Your task to perform on an android device: turn smart compose on in the gmail app Image 0: 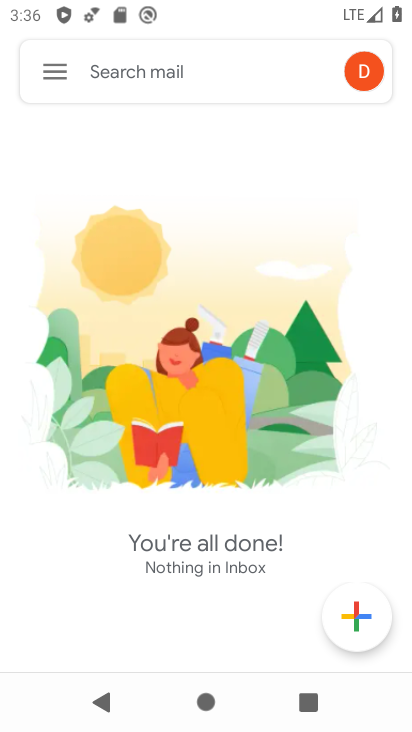
Step 0: click (53, 64)
Your task to perform on an android device: turn smart compose on in the gmail app Image 1: 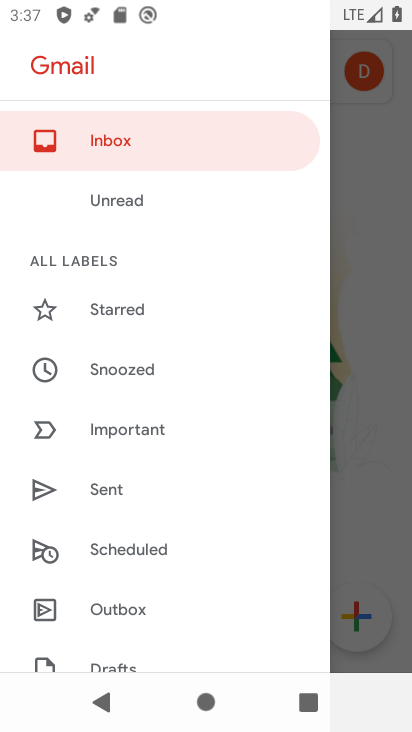
Step 1: drag from (232, 629) to (250, 346)
Your task to perform on an android device: turn smart compose on in the gmail app Image 2: 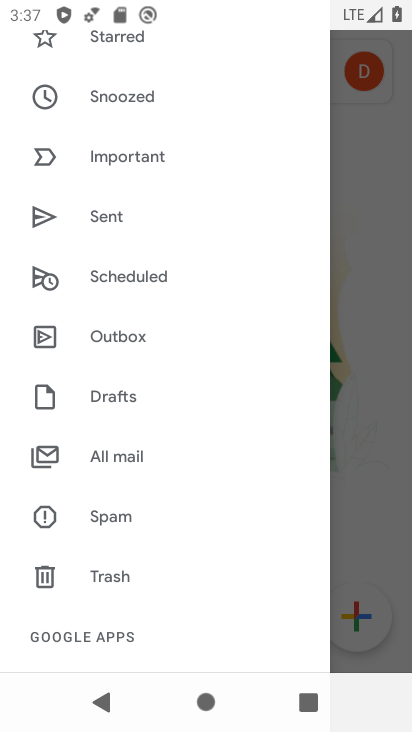
Step 2: drag from (234, 585) to (237, 283)
Your task to perform on an android device: turn smart compose on in the gmail app Image 3: 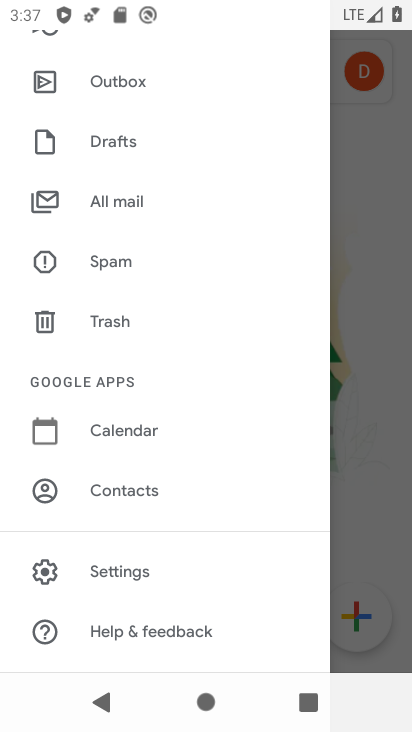
Step 3: click (106, 570)
Your task to perform on an android device: turn smart compose on in the gmail app Image 4: 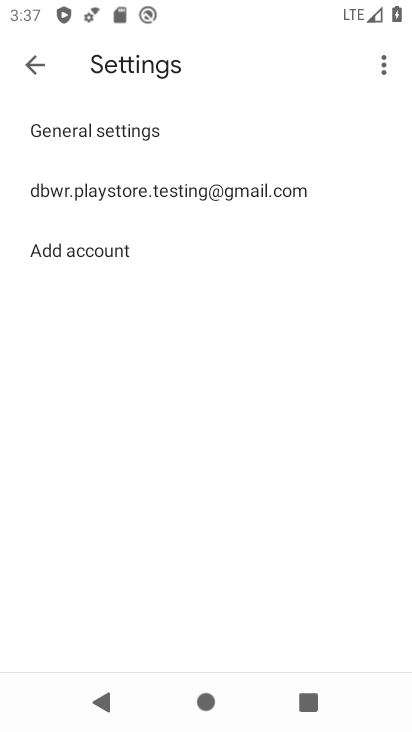
Step 4: click (128, 190)
Your task to perform on an android device: turn smart compose on in the gmail app Image 5: 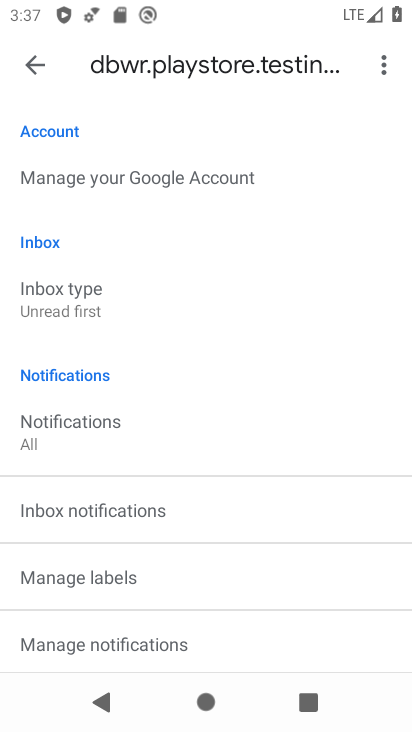
Step 5: task complete